Your task to perform on an android device: refresh tabs in the chrome app Image 0: 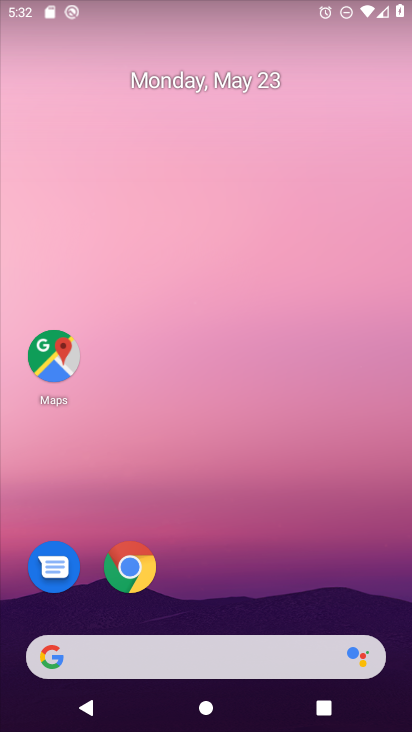
Step 0: click (131, 568)
Your task to perform on an android device: refresh tabs in the chrome app Image 1: 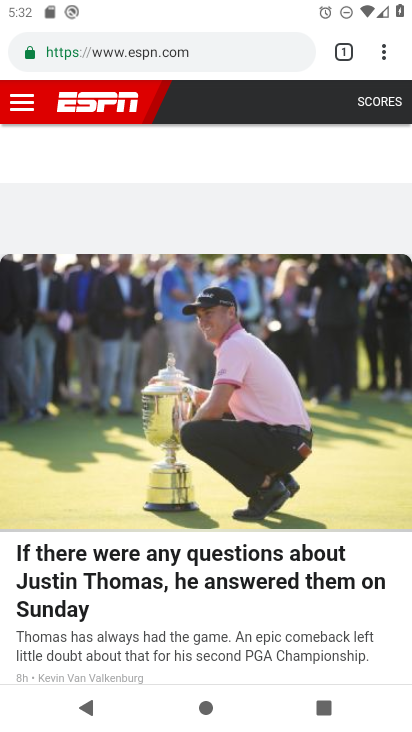
Step 1: click (385, 53)
Your task to perform on an android device: refresh tabs in the chrome app Image 2: 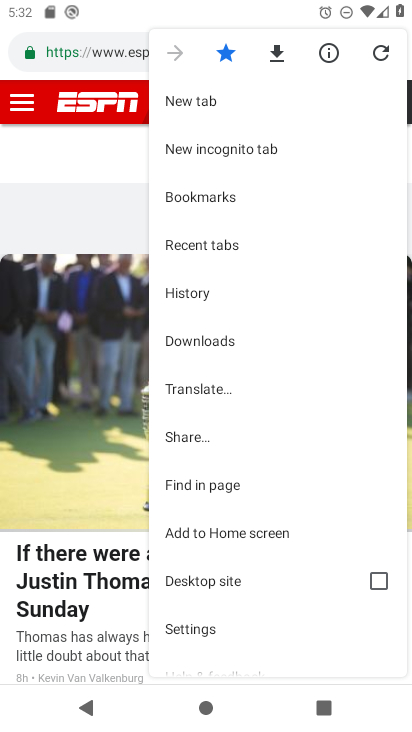
Step 2: click (385, 53)
Your task to perform on an android device: refresh tabs in the chrome app Image 3: 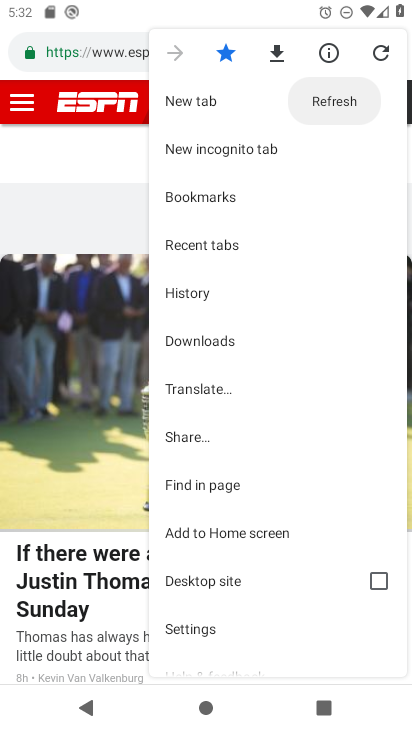
Step 3: click (385, 53)
Your task to perform on an android device: refresh tabs in the chrome app Image 4: 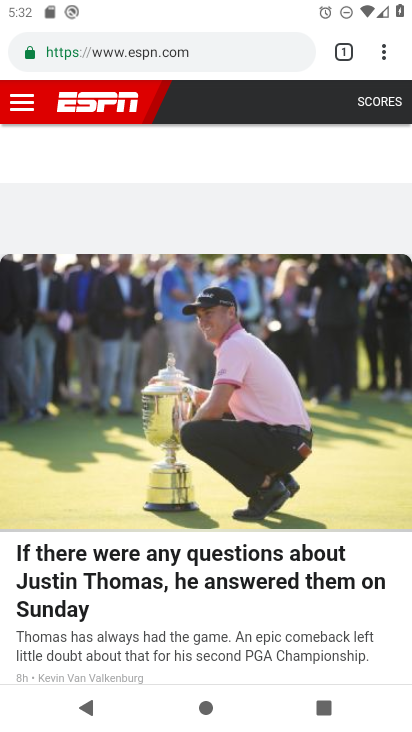
Step 4: task complete